Your task to perform on an android device: Turn on the flashlight Image 0: 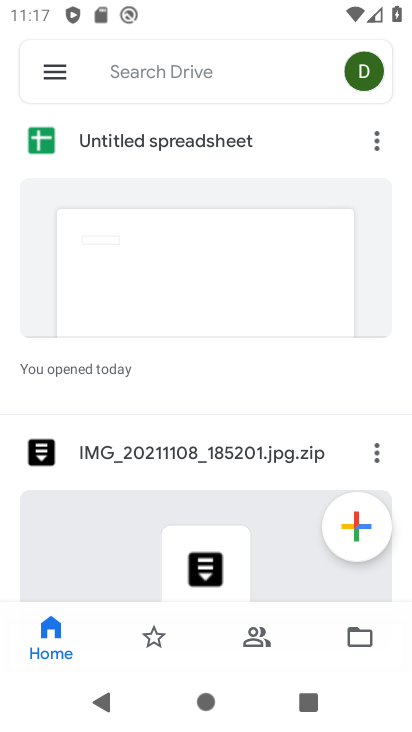
Step 0: press home button
Your task to perform on an android device: Turn on the flashlight Image 1: 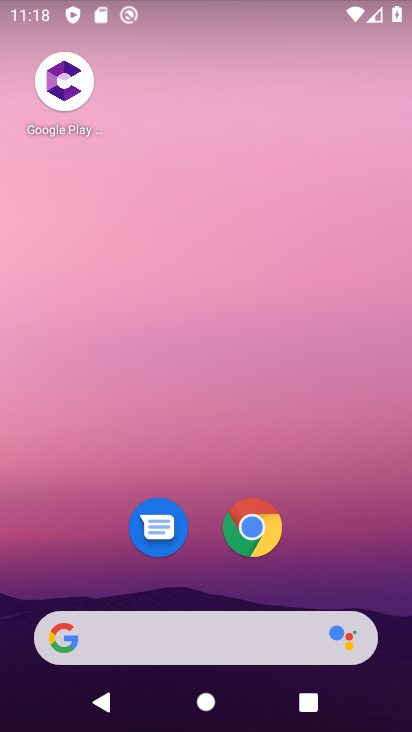
Step 1: drag from (329, 540) to (246, 128)
Your task to perform on an android device: Turn on the flashlight Image 2: 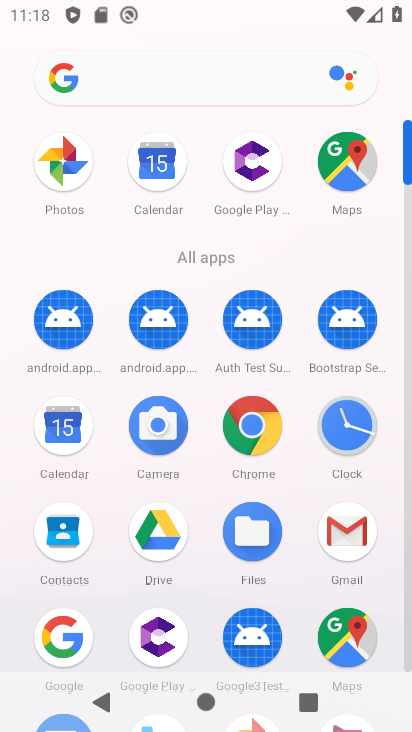
Step 2: click (405, 575)
Your task to perform on an android device: Turn on the flashlight Image 3: 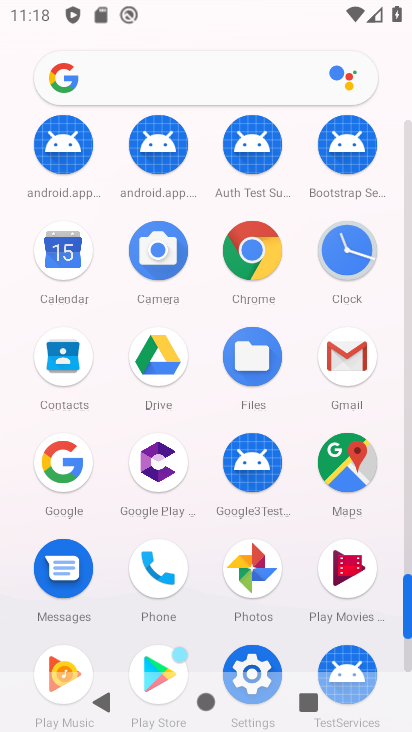
Step 3: click (262, 656)
Your task to perform on an android device: Turn on the flashlight Image 4: 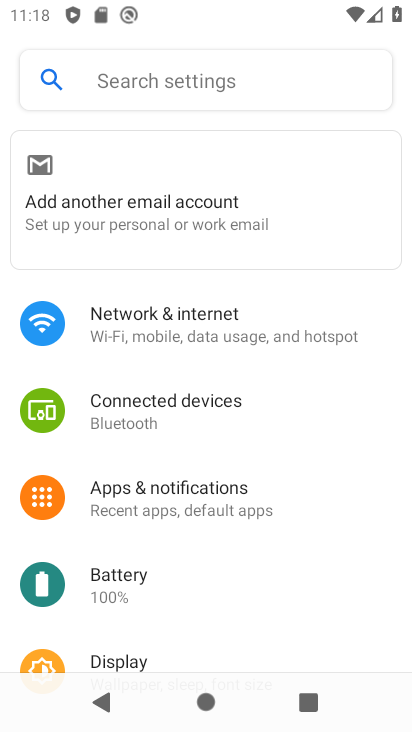
Step 4: drag from (247, 650) to (233, 486)
Your task to perform on an android device: Turn on the flashlight Image 5: 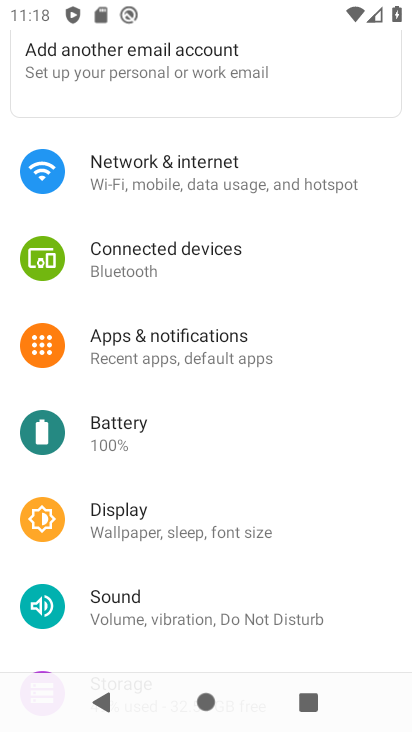
Step 5: click (233, 486)
Your task to perform on an android device: Turn on the flashlight Image 6: 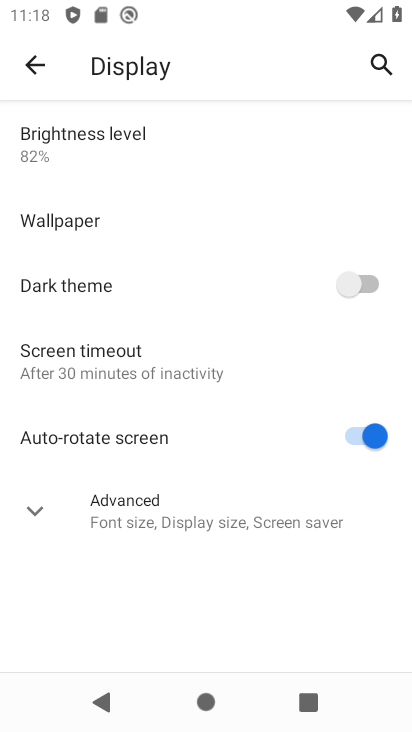
Step 6: task complete